Your task to perform on an android device: Open the web browser Image 0: 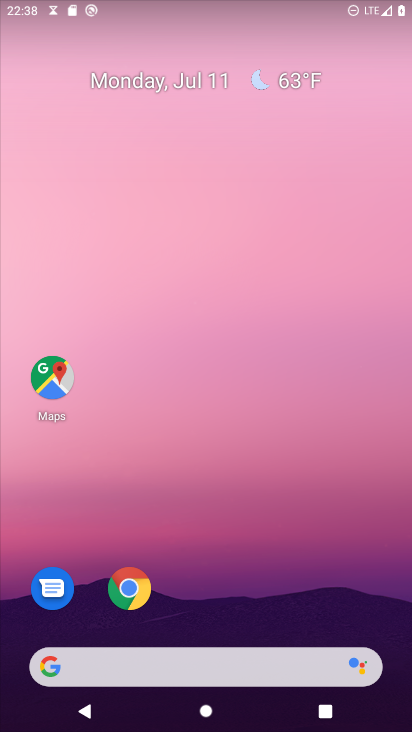
Step 0: press home button
Your task to perform on an android device: Open the web browser Image 1: 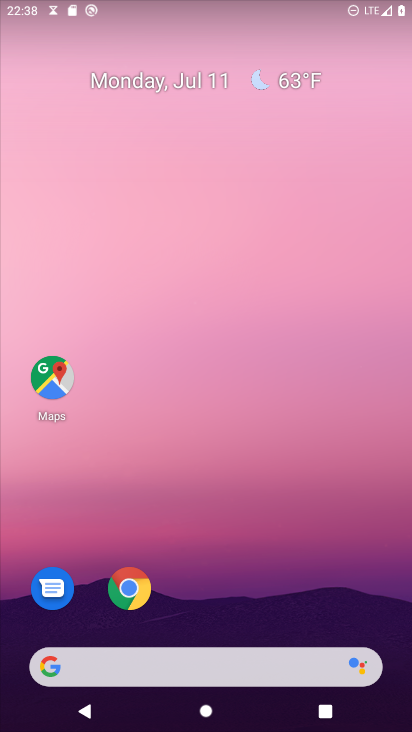
Step 1: click (48, 664)
Your task to perform on an android device: Open the web browser Image 2: 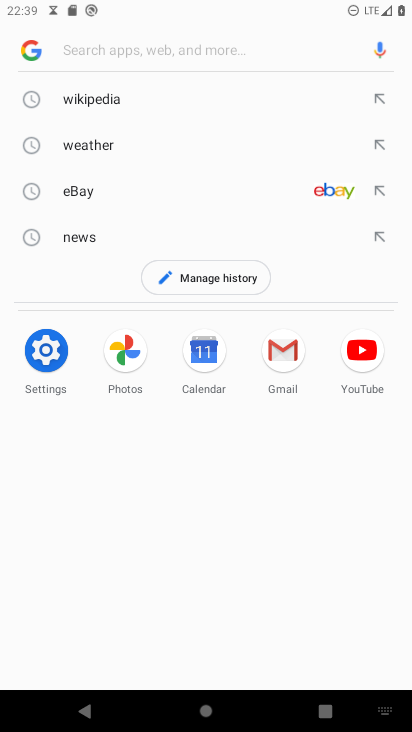
Step 2: task complete